Your task to perform on an android device: Go to eBay Image 0: 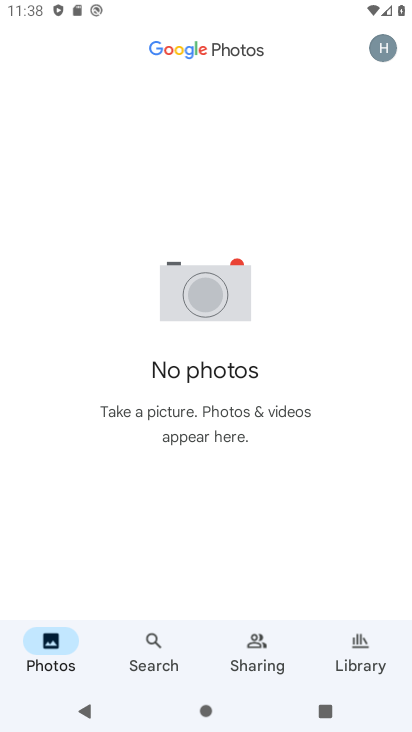
Step 0: press home button
Your task to perform on an android device: Go to eBay Image 1: 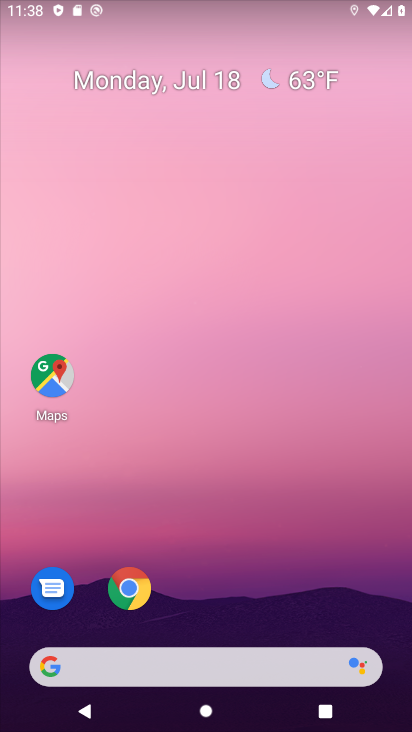
Step 1: drag from (282, 465) to (272, 5)
Your task to perform on an android device: Go to eBay Image 2: 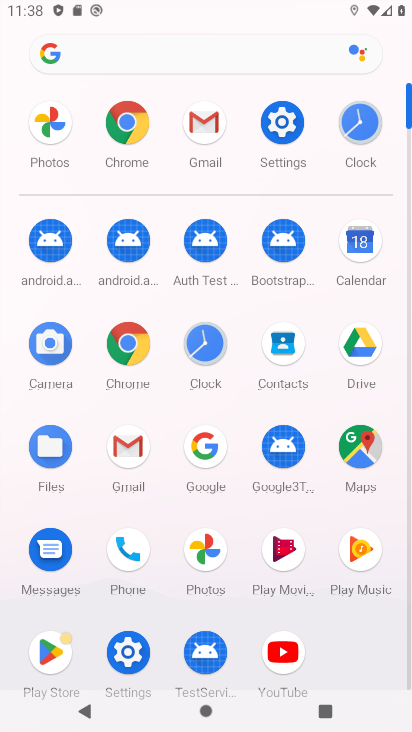
Step 2: click (131, 131)
Your task to perform on an android device: Go to eBay Image 3: 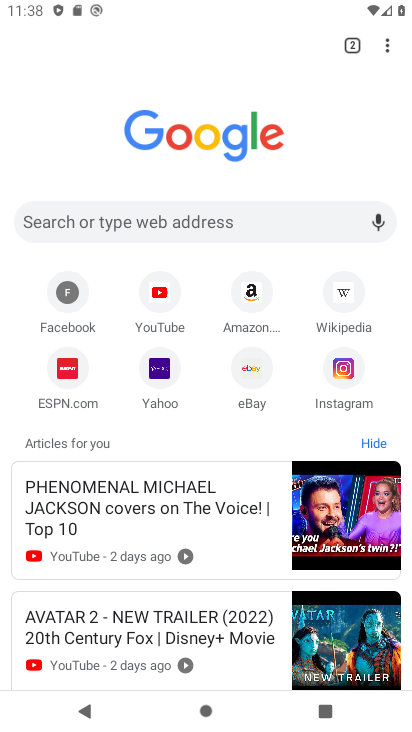
Step 3: click (240, 369)
Your task to perform on an android device: Go to eBay Image 4: 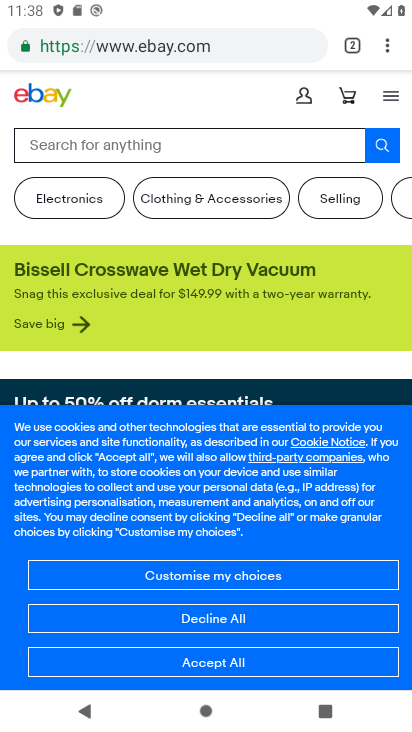
Step 4: task complete